Your task to perform on an android device: change notifications settings Image 0: 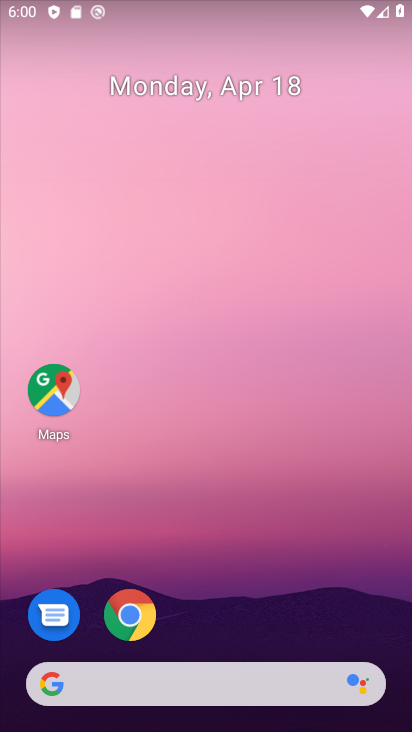
Step 0: drag from (227, 546) to (218, 25)
Your task to perform on an android device: change notifications settings Image 1: 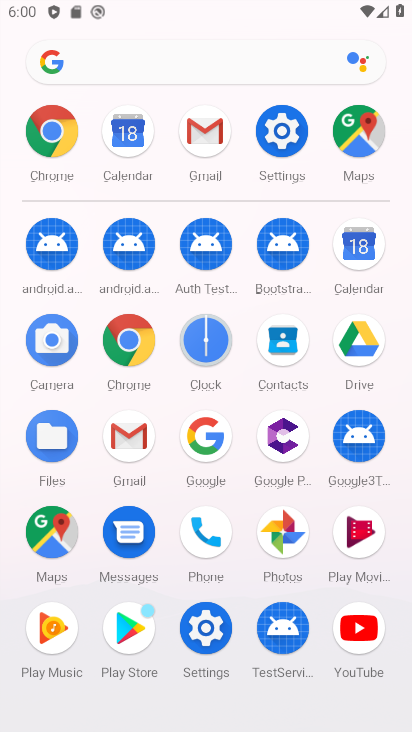
Step 1: click (271, 152)
Your task to perform on an android device: change notifications settings Image 2: 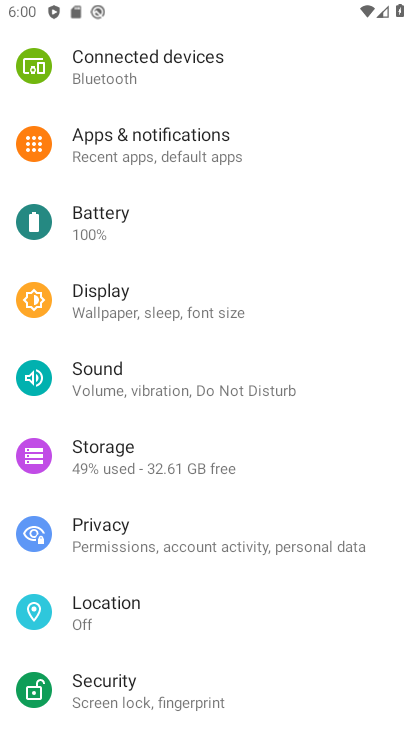
Step 2: click (214, 150)
Your task to perform on an android device: change notifications settings Image 3: 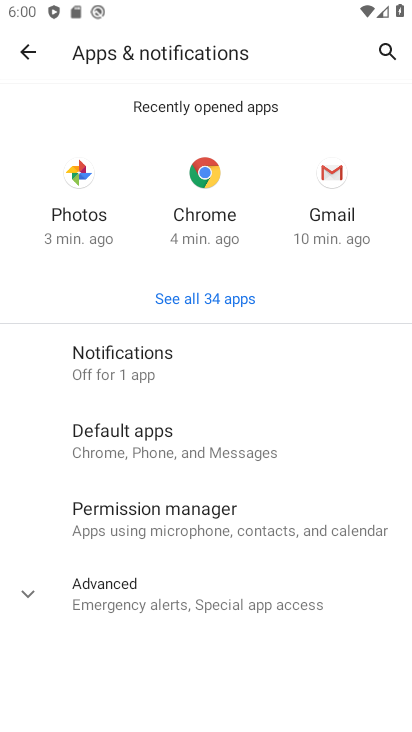
Step 3: click (197, 365)
Your task to perform on an android device: change notifications settings Image 4: 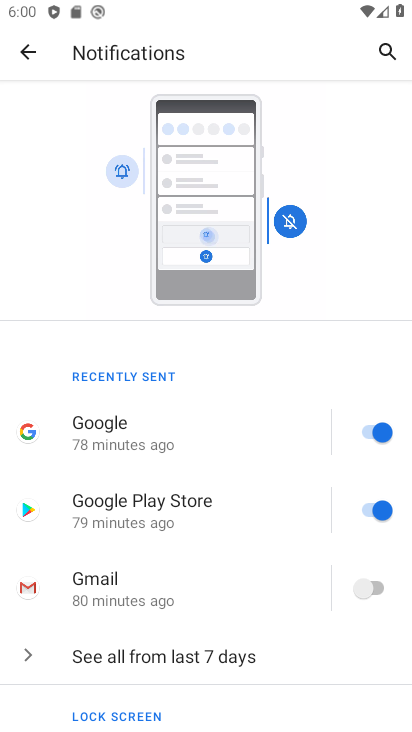
Step 4: drag from (201, 696) to (183, 350)
Your task to perform on an android device: change notifications settings Image 5: 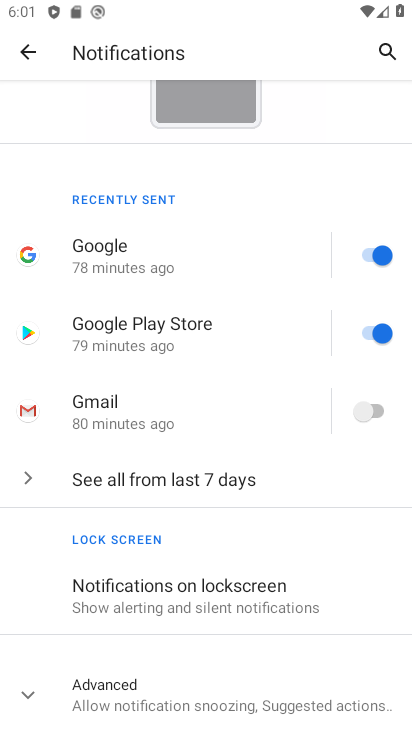
Step 5: click (185, 599)
Your task to perform on an android device: change notifications settings Image 6: 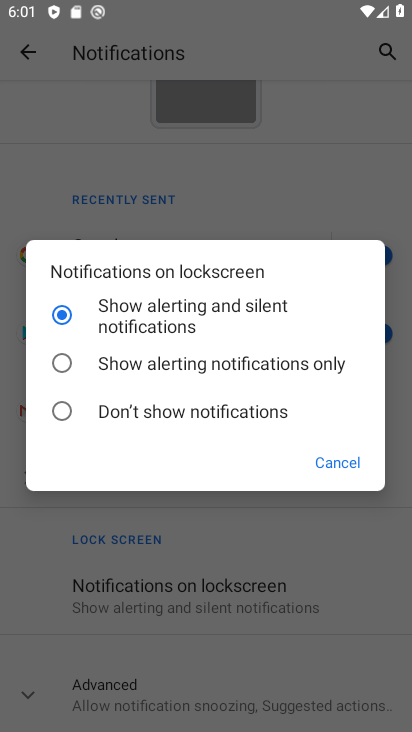
Step 6: click (85, 644)
Your task to perform on an android device: change notifications settings Image 7: 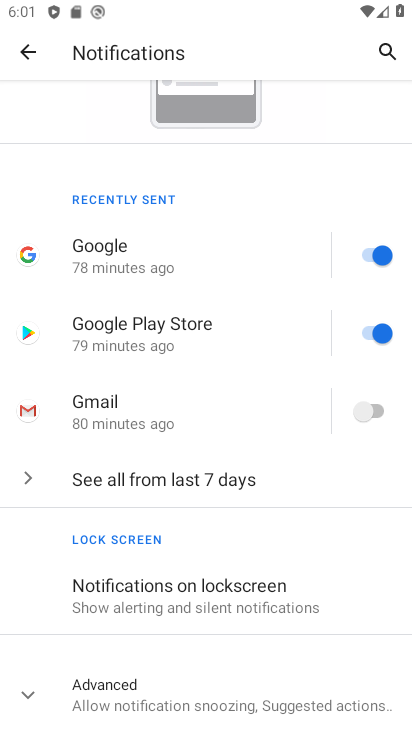
Step 7: click (258, 707)
Your task to perform on an android device: change notifications settings Image 8: 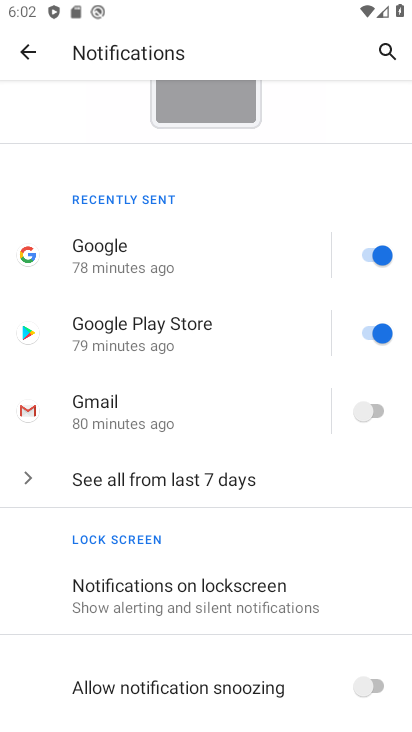
Step 8: drag from (200, 668) to (180, 283)
Your task to perform on an android device: change notifications settings Image 9: 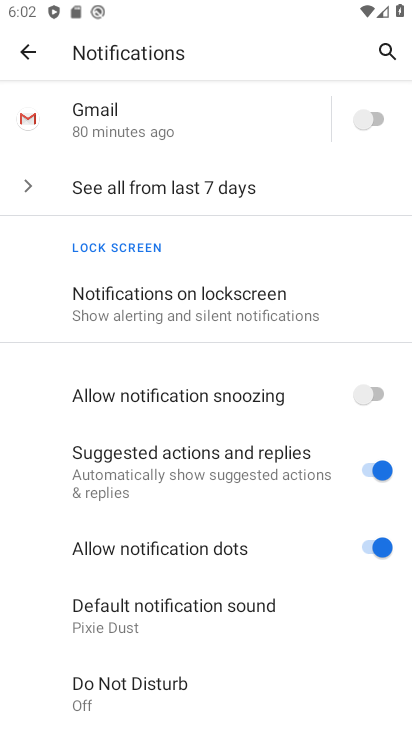
Step 9: click (360, 399)
Your task to perform on an android device: change notifications settings Image 10: 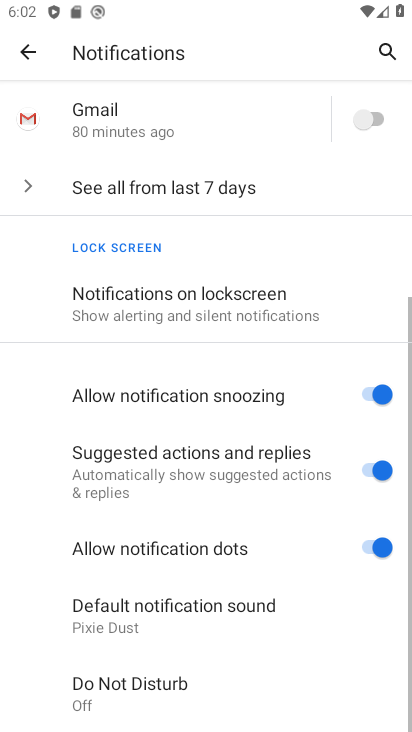
Step 10: click (361, 471)
Your task to perform on an android device: change notifications settings Image 11: 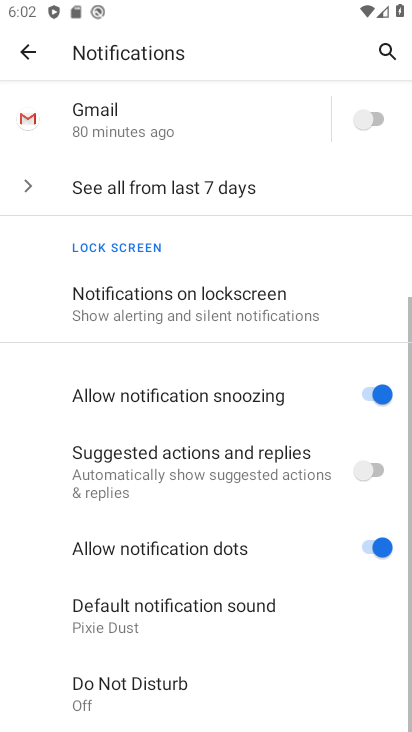
Step 11: click (340, 540)
Your task to perform on an android device: change notifications settings Image 12: 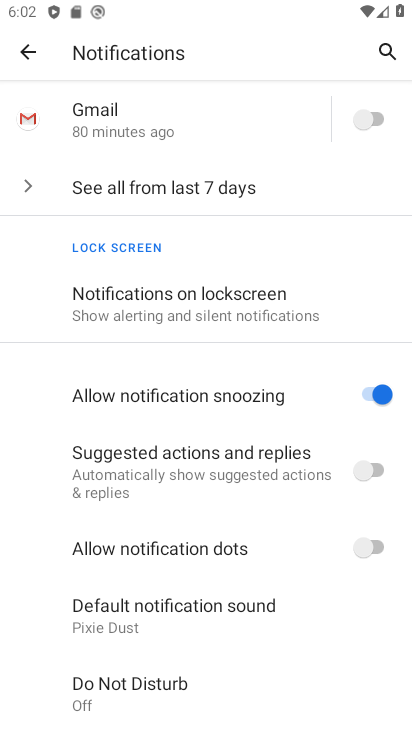
Step 12: task complete